Your task to perform on an android device: change notification settings in the gmail app Image 0: 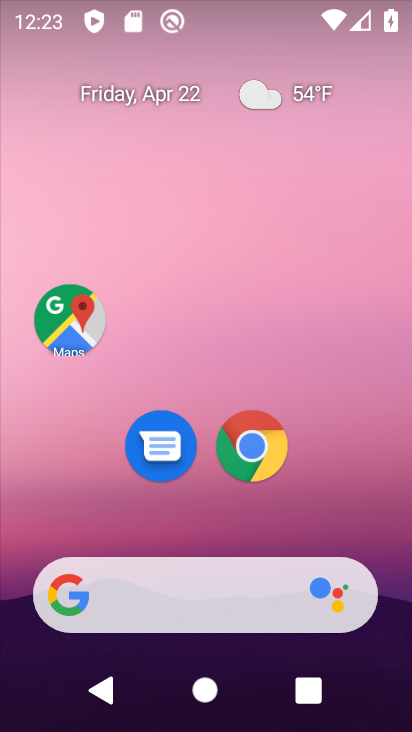
Step 0: drag from (368, 544) to (355, 205)
Your task to perform on an android device: change notification settings in the gmail app Image 1: 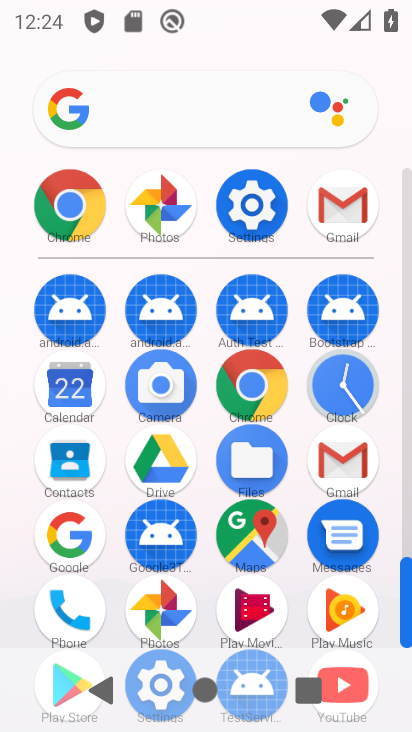
Step 1: click (355, 218)
Your task to perform on an android device: change notification settings in the gmail app Image 2: 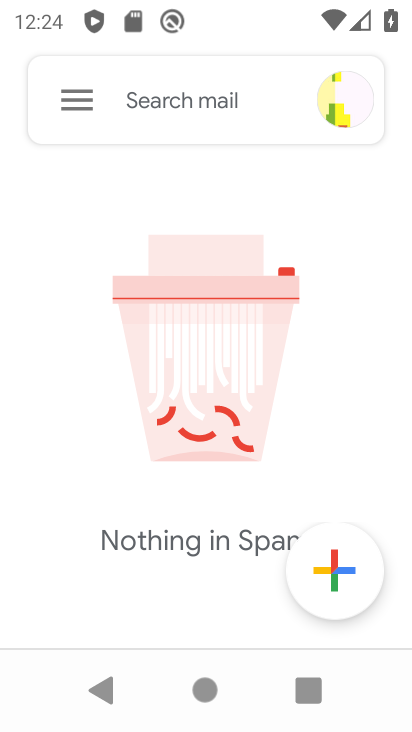
Step 2: click (86, 95)
Your task to perform on an android device: change notification settings in the gmail app Image 3: 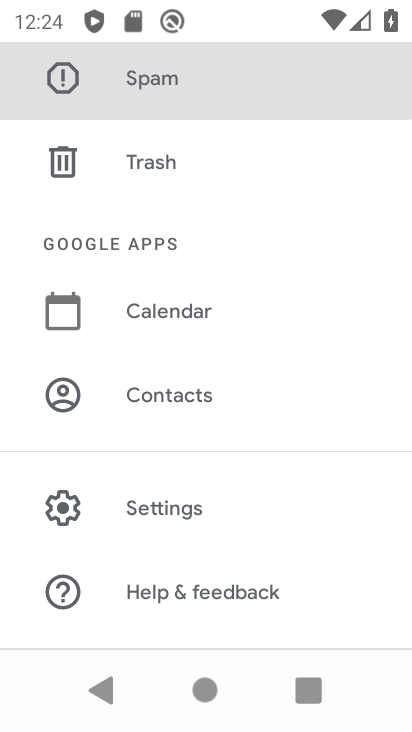
Step 3: click (271, 507)
Your task to perform on an android device: change notification settings in the gmail app Image 4: 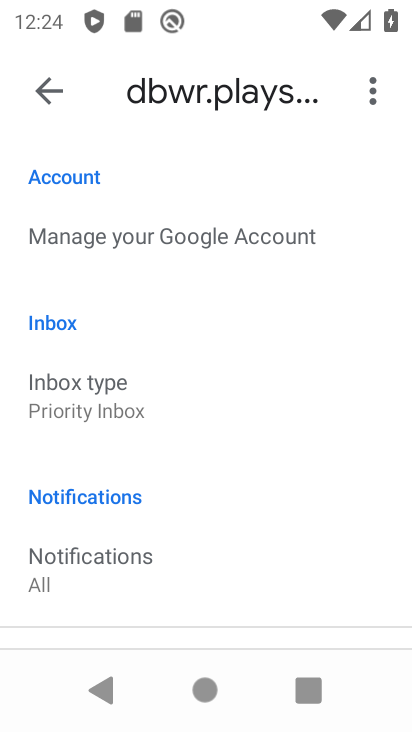
Step 4: drag from (276, 579) to (296, 170)
Your task to perform on an android device: change notification settings in the gmail app Image 5: 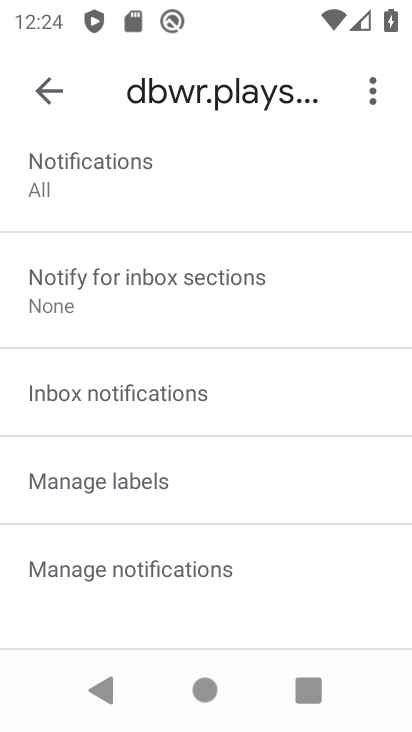
Step 5: click (248, 553)
Your task to perform on an android device: change notification settings in the gmail app Image 6: 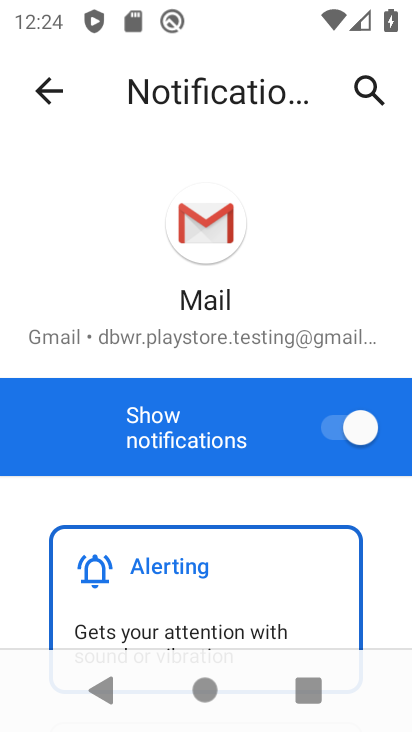
Step 6: drag from (384, 615) to (304, 261)
Your task to perform on an android device: change notification settings in the gmail app Image 7: 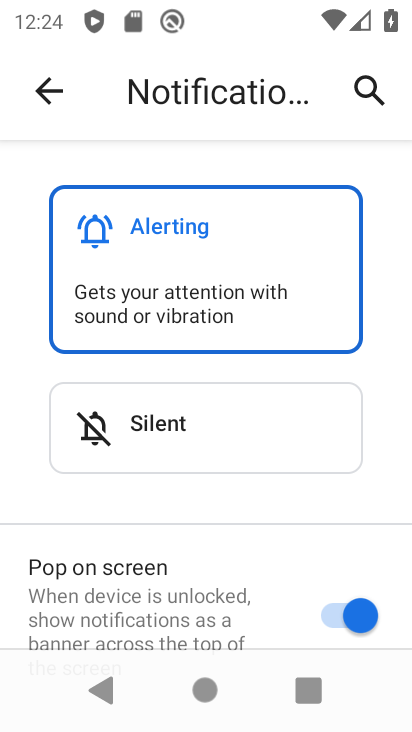
Step 7: click (327, 427)
Your task to perform on an android device: change notification settings in the gmail app Image 8: 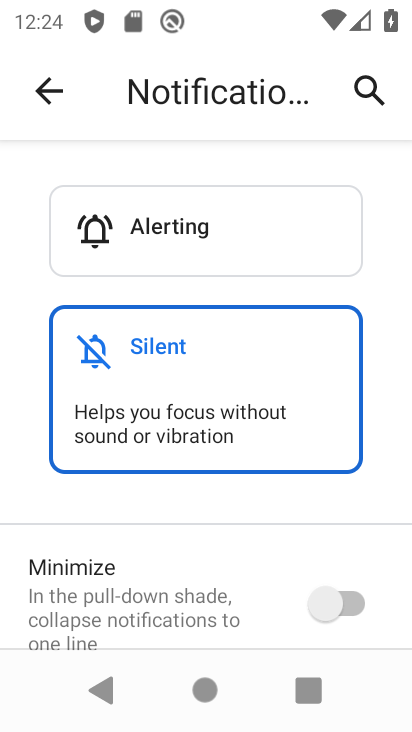
Step 8: click (355, 613)
Your task to perform on an android device: change notification settings in the gmail app Image 9: 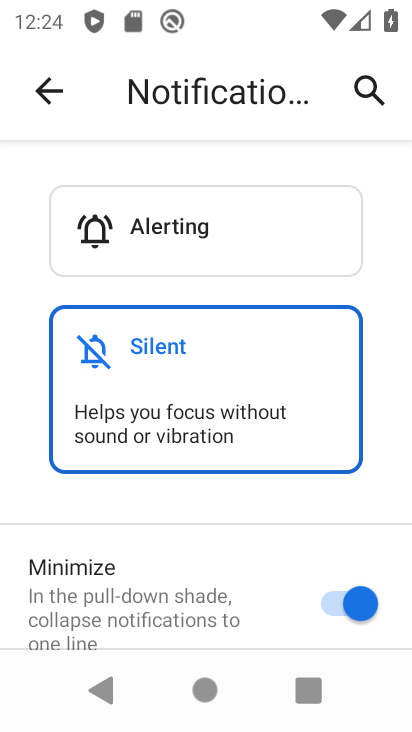
Step 9: task complete